Your task to perform on an android device: When is my next meeting? Image 0: 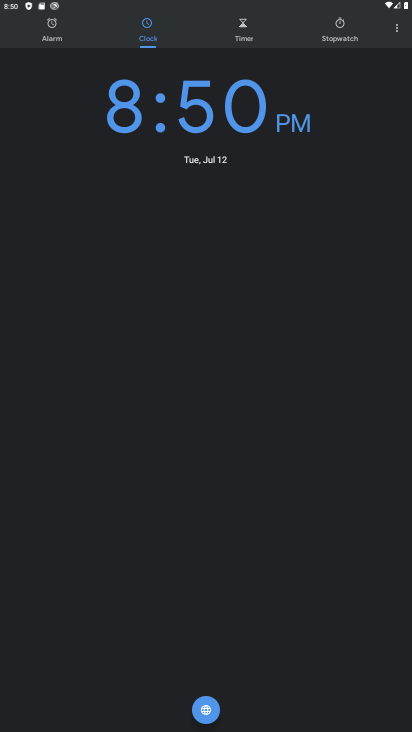
Step 0: press home button
Your task to perform on an android device: When is my next meeting? Image 1: 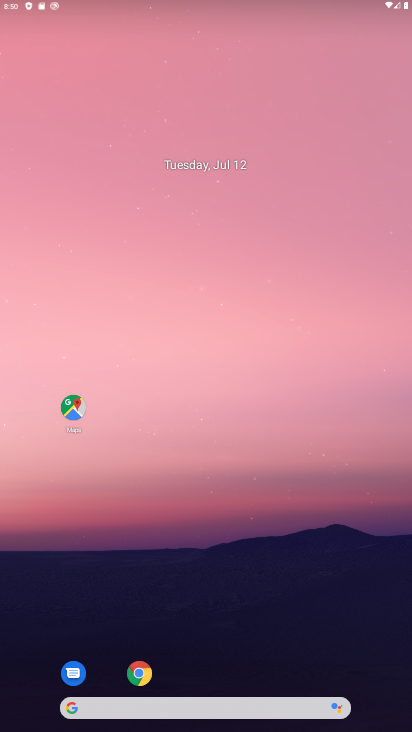
Step 1: drag from (116, 616) to (155, 151)
Your task to perform on an android device: When is my next meeting? Image 2: 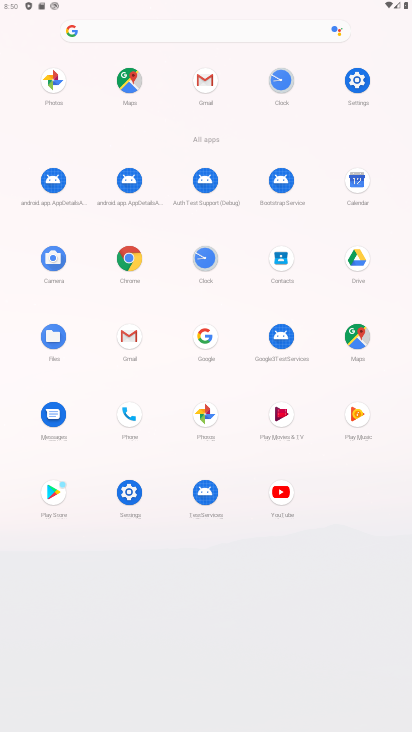
Step 2: click (351, 182)
Your task to perform on an android device: When is my next meeting? Image 3: 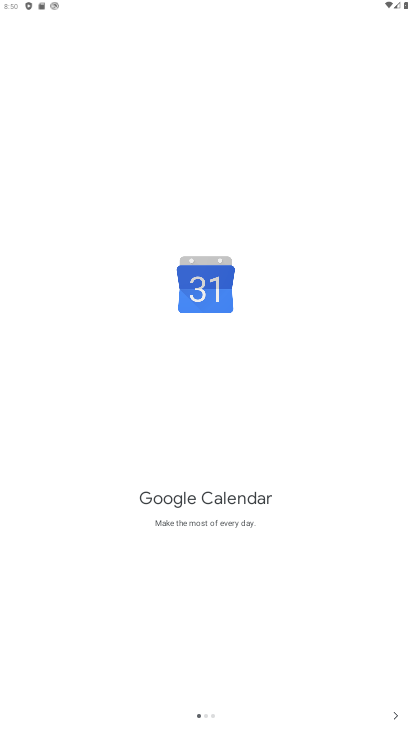
Step 3: click (397, 723)
Your task to perform on an android device: When is my next meeting? Image 4: 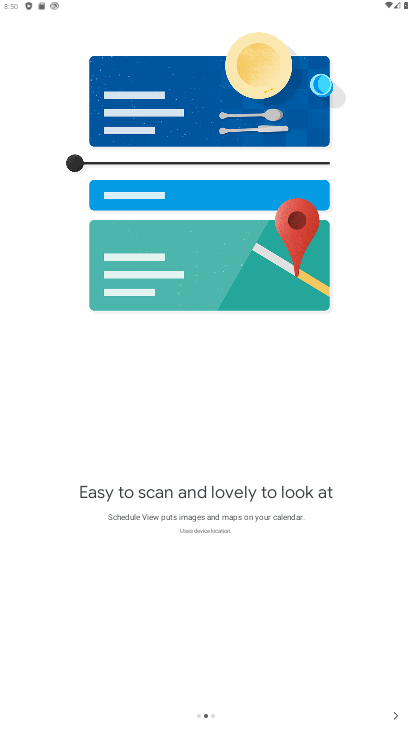
Step 4: click (402, 717)
Your task to perform on an android device: When is my next meeting? Image 5: 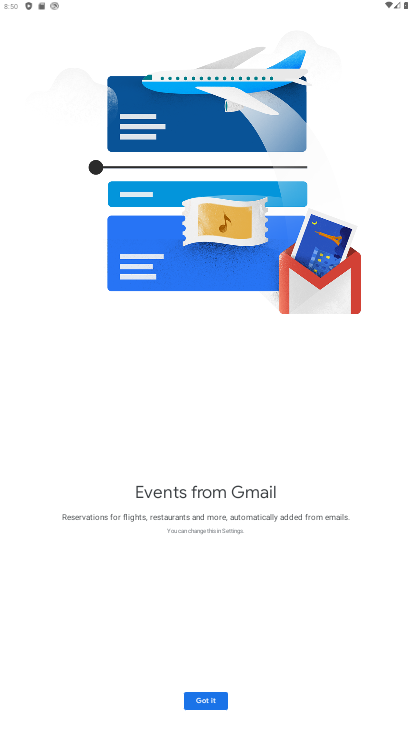
Step 5: click (195, 699)
Your task to perform on an android device: When is my next meeting? Image 6: 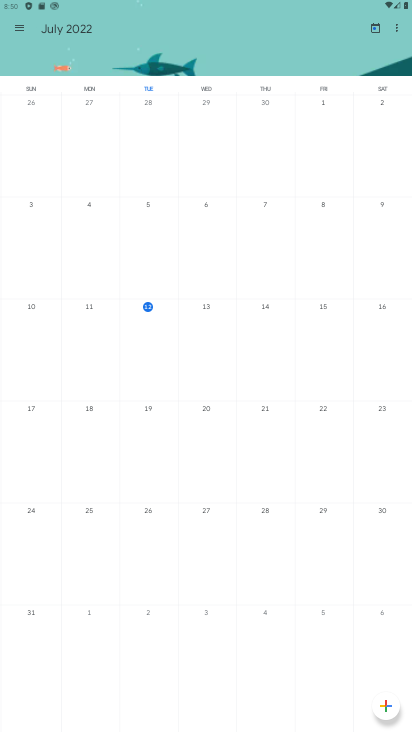
Step 6: click (13, 30)
Your task to perform on an android device: When is my next meeting? Image 7: 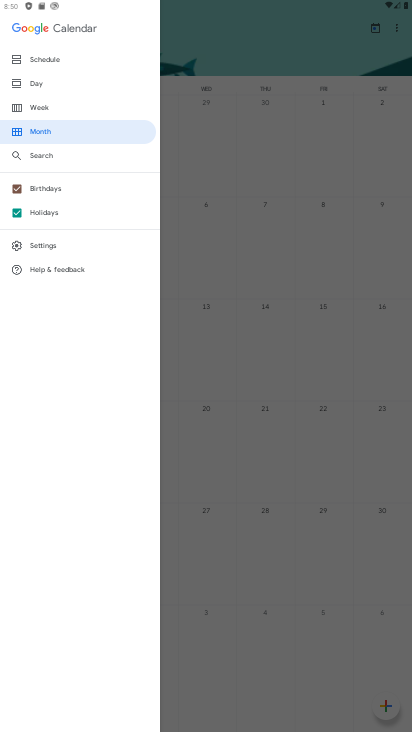
Step 7: click (49, 63)
Your task to perform on an android device: When is my next meeting? Image 8: 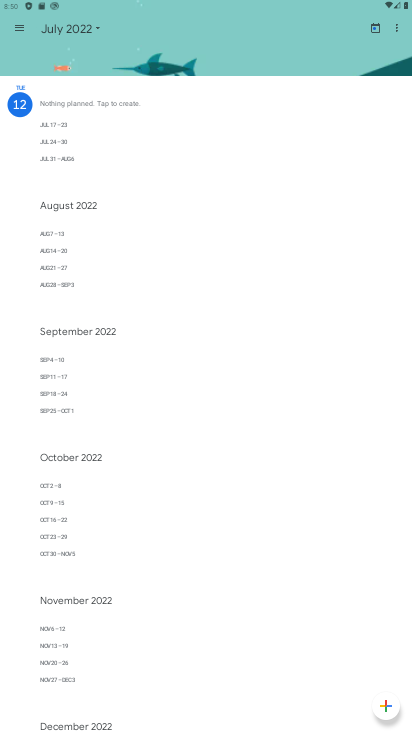
Step 8: task complete